Your task to perform on an android device: turn pop-ups off in chrome Image 0: 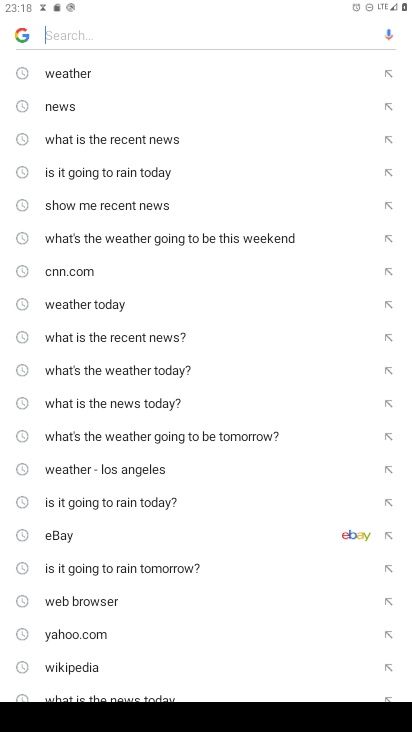
Step 0: press home button
Your task to perform on an android device: turn pop-ups off in chrome Image 1: 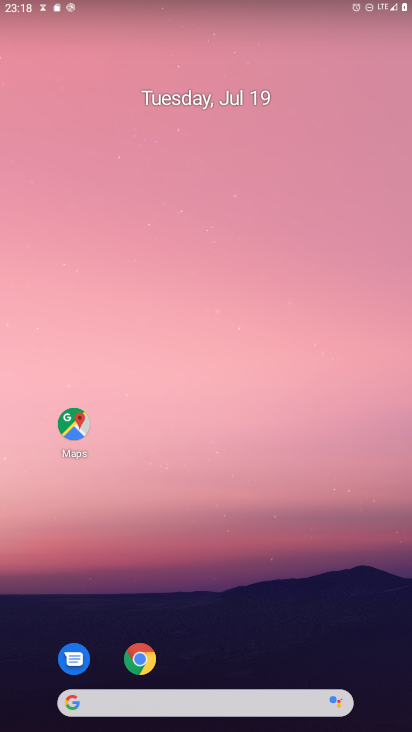
Step 1: click (146, 660)
Your task to perform on an android device: turn pop-ups off in chrome Image 2: 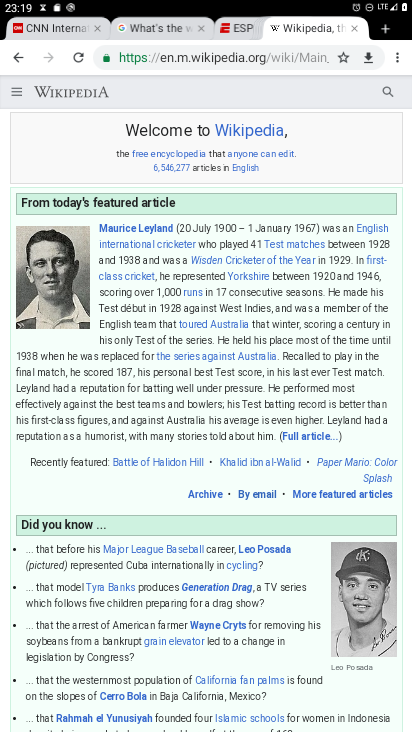
Step 2: click (397, 54)
Your task to perform on an android device: turn pop-ups off in chrome Image 3: 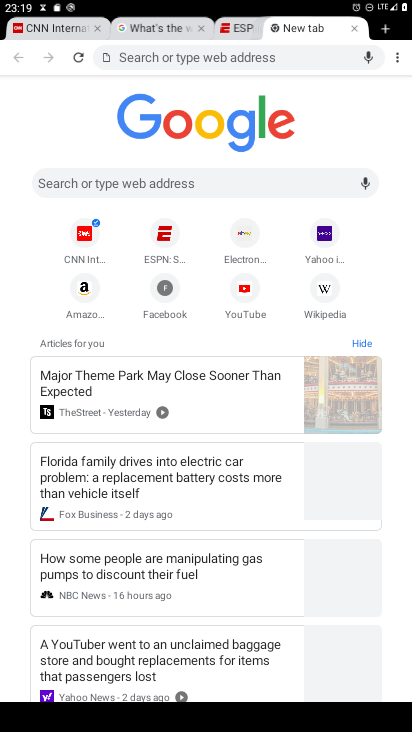
Step 3: click (409, 62)
Your task to perform on an android device: turn pop-ups off in chrome Image 4: 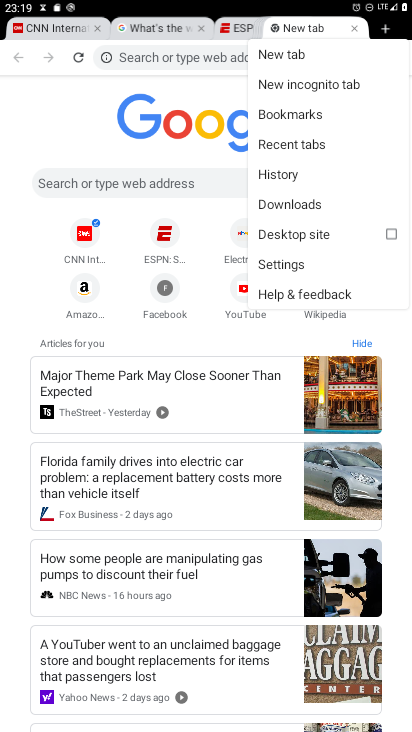
Step 4: click (282, 263)
Your task to perform on an android device: turn pop-ups off in chrome Image 5: 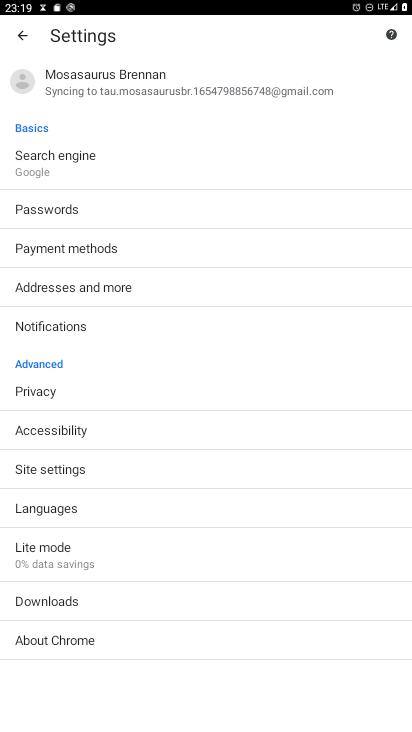
Step 5: click (105, 470)
Your task to perform on an android device: turn pop-ups off in chrome Image 6: 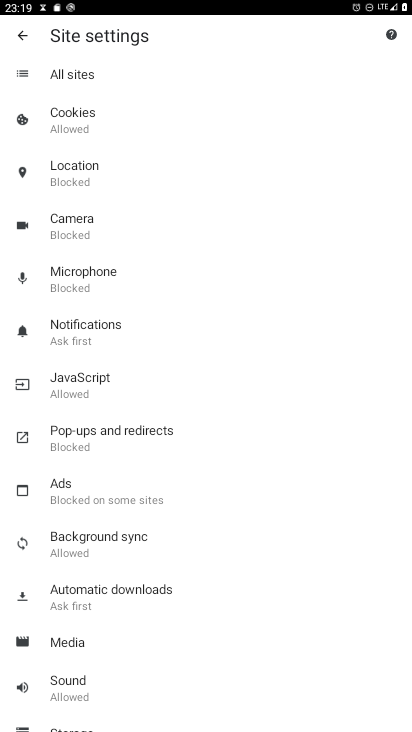
Step 6: click (141, 448)
Your task to perform on an android device: turn pop-ups off in chrome Image 7: 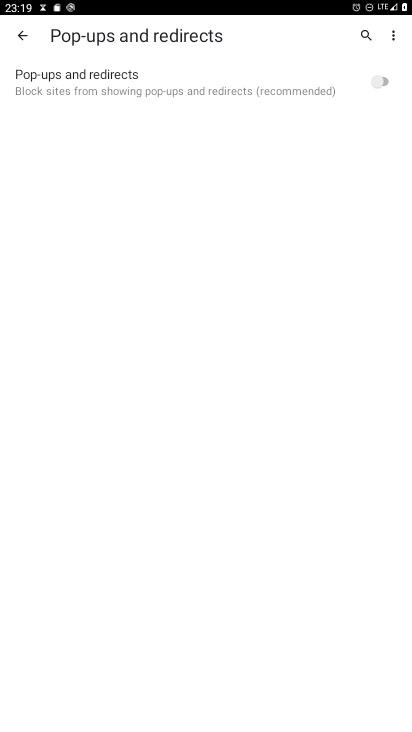
Step 7: click (375, 84)
Your task to perform on an android device: turn pop-ups off in chrome Image 8: 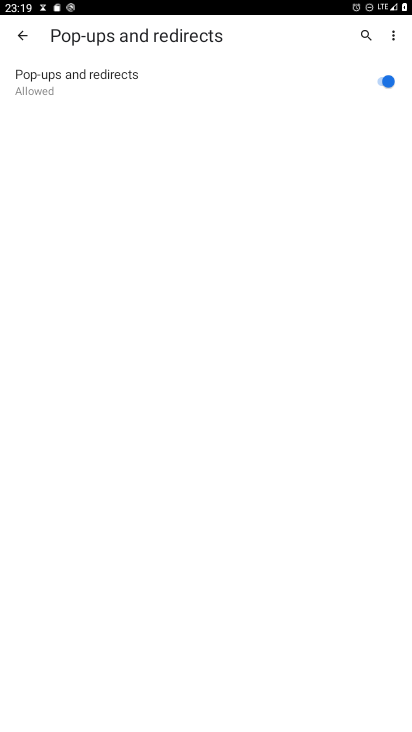
Step 8: click (382, 79)
Your task to perform on an android device: turn pop-ups off in chrome Image 9: 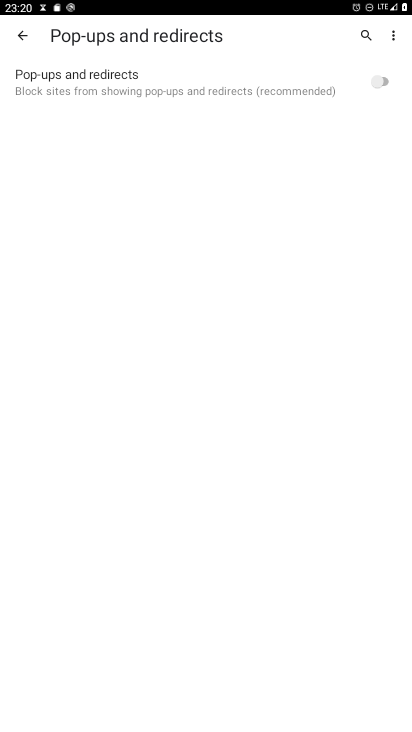
Step 9: task complete